Your task to perform on an android device: What's on my calendar today? Image 0: 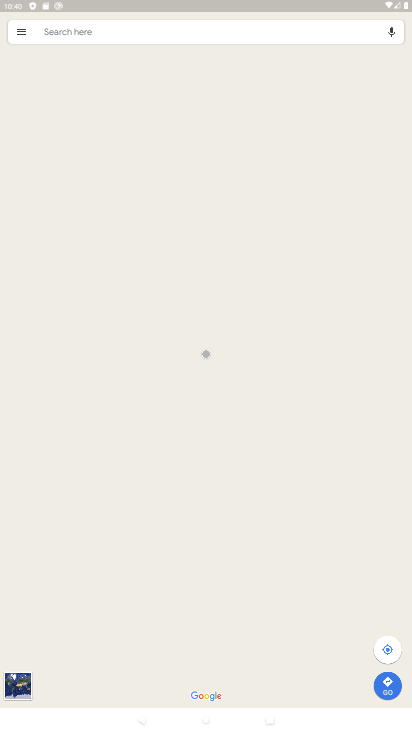
Step 0: press home button
Your task to perform on an android device: What's on my calendar today? Image 1: 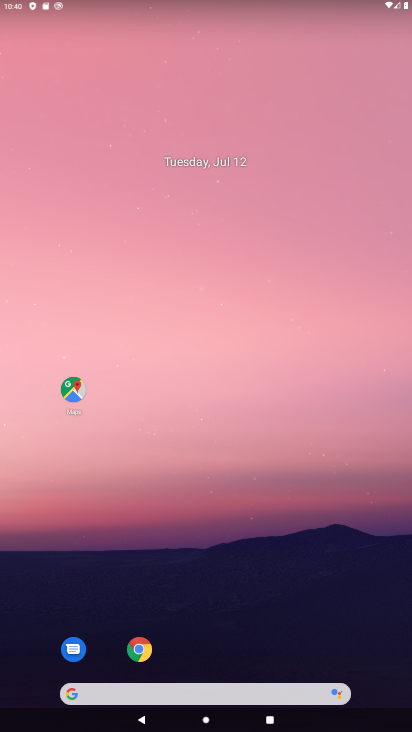
Step 1: drag from (234, 662) to (298, 1)
Your task to perform on an android device: What's on my calendar today? Image 2: 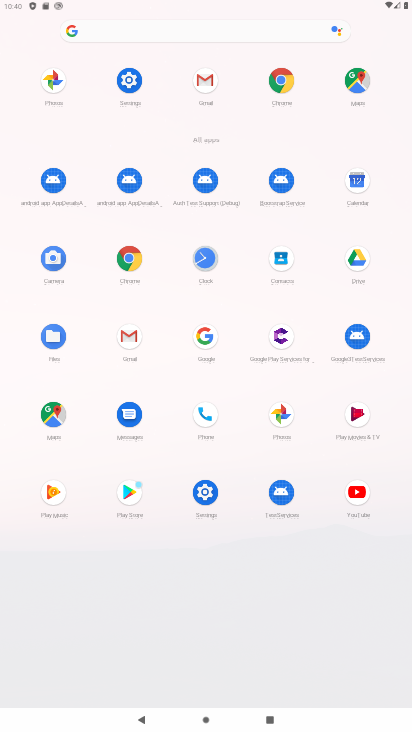
Step 2: click (351, 184)
Your task to perform on an android device: What's on my calendar today? Image 3: 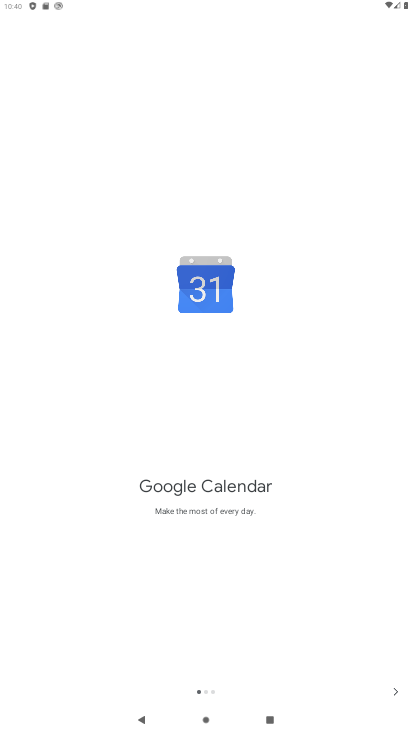
Step 3: click (396, 686)
Your task to perform on an android device: What's on my calendar today? Image 4: 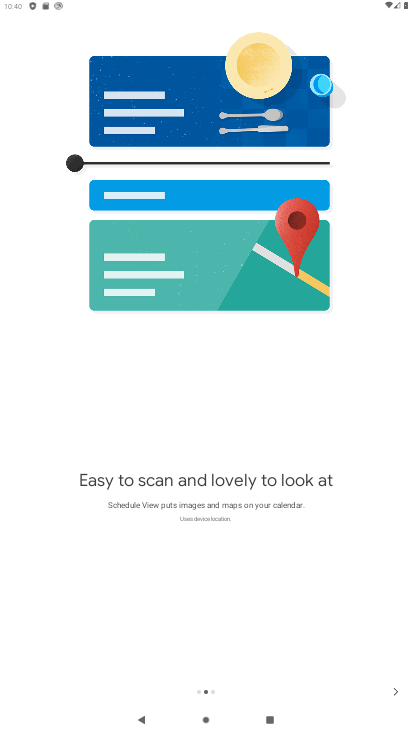
Step 4: click (397, 692)
Your task to perform on an android device: What's on my calendar today? Image 5: 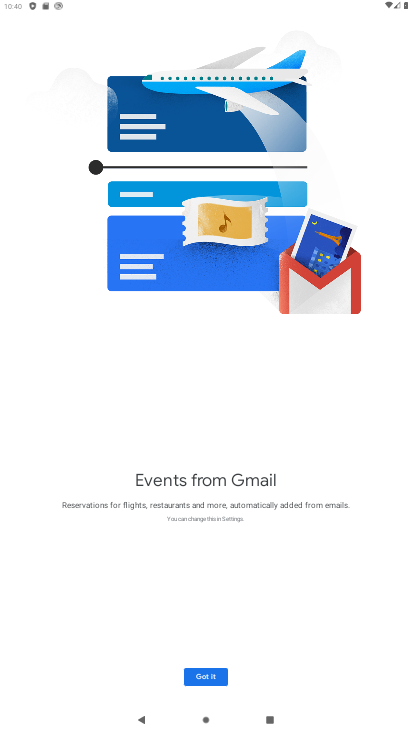
Step 5: click (206, 682)
Your task to perform on an android device: What's on my calendar today? Image 6: 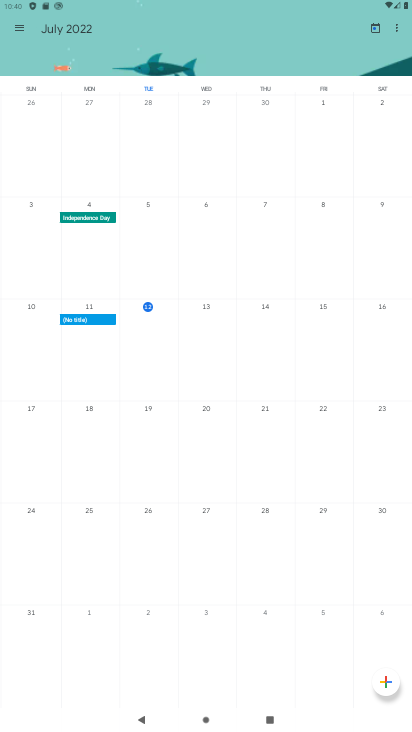
Step 6: click (21, 30)
Your task to perform on an android device: What's on my calendar today? Image 7: 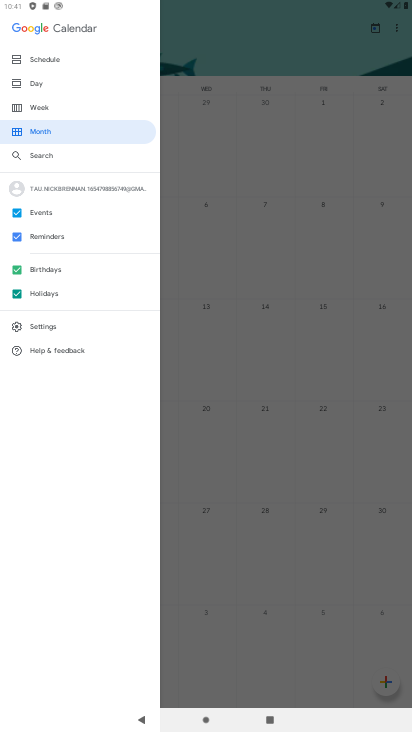
Step 7: click (41, 88)
Your task to perform on an android device: What's on my calendar today? Image 8: 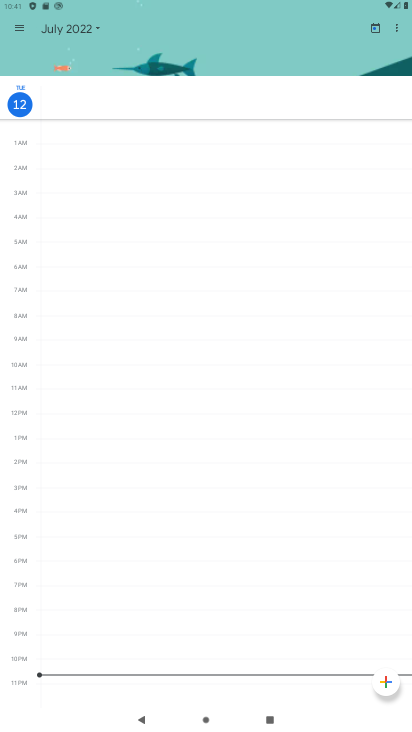
Step 8: task complete